Your task to perform on an android device: Open Google Chrome Image 0: 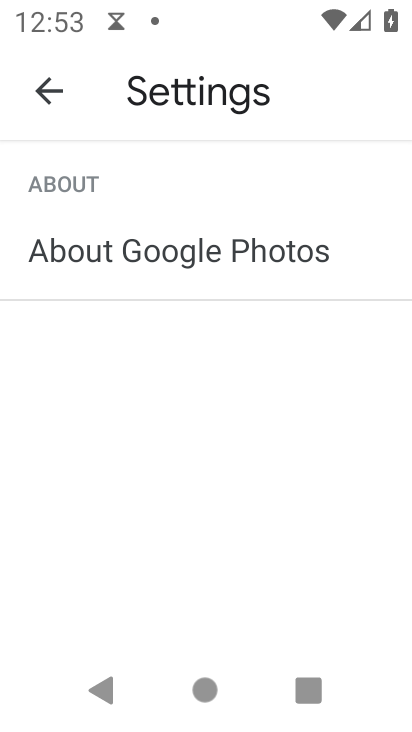
Step 0: click (34, 89)
Your task to perform on an android device: Open Google Chrome Image 1: 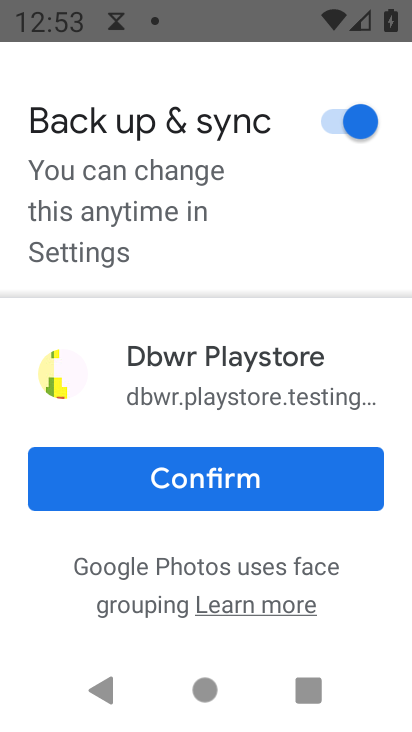
Step 1: click (240, 479)
Your task to perform on an android device: Open Google Chrome Image 2: 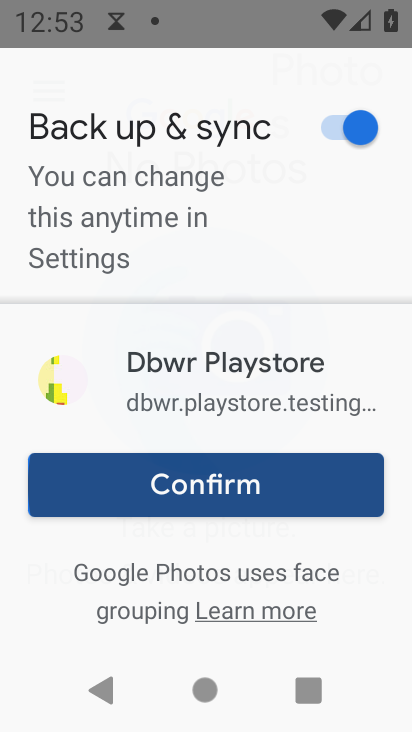
Step 2: click (242, 482)
Your task to perform on an android device: Open Google Chrome Image 3: 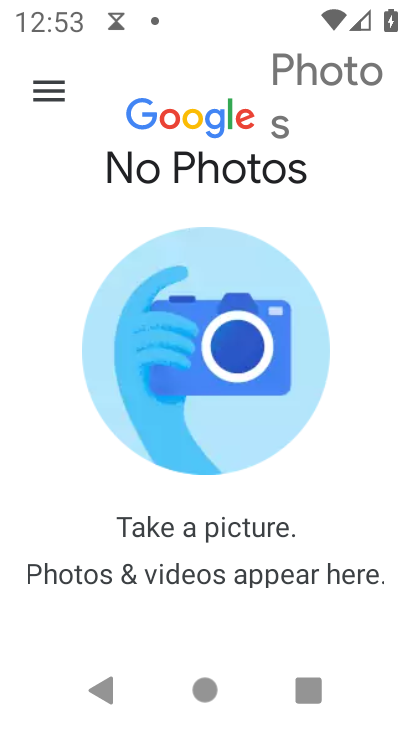
Step 3: click (242, 482)
Your task to perform on an android device: Open Google Chrome Image 4: 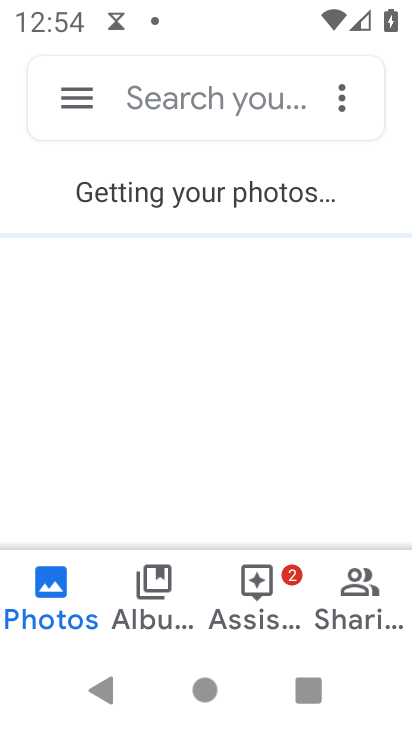
Step 4: press back button
Your task to perform on an android device: Open Google Chrome Image 5: 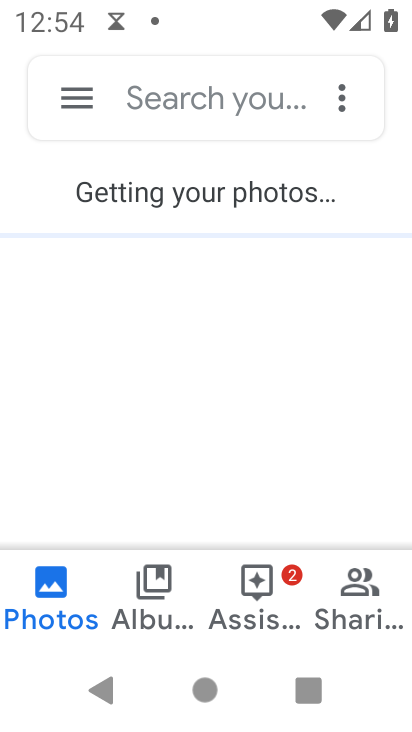
Step 5: press back button
Your task to perform on an android device: Open Google Chrome Image 6: 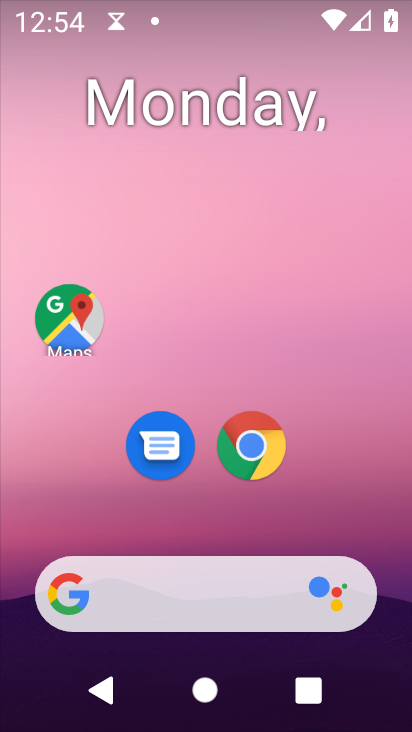
Step 6: drag from (343, 540) to (216, 80)
Your task to perform on an android device: Open Google Chrome Image 7: 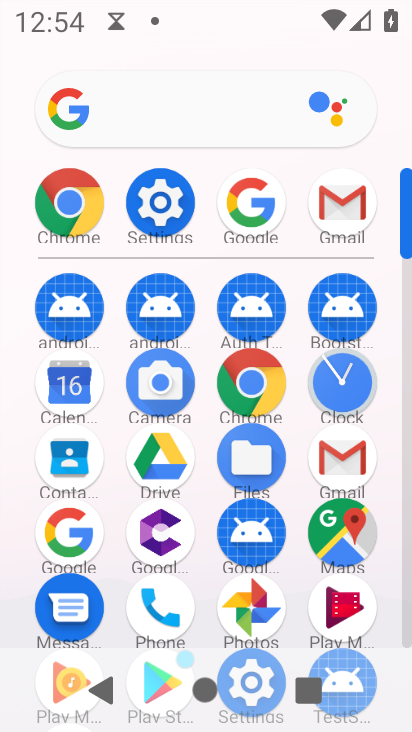
Step 7: click (242, 388)
Your task to perform on an android device: Open Google Chrome Image 8: 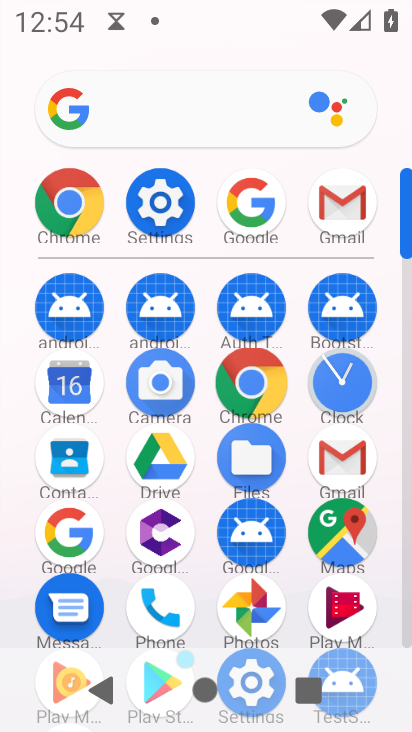
Step 8: click (245, 384)
Your task to perform on an android device: Open Google Chrome Image 9: 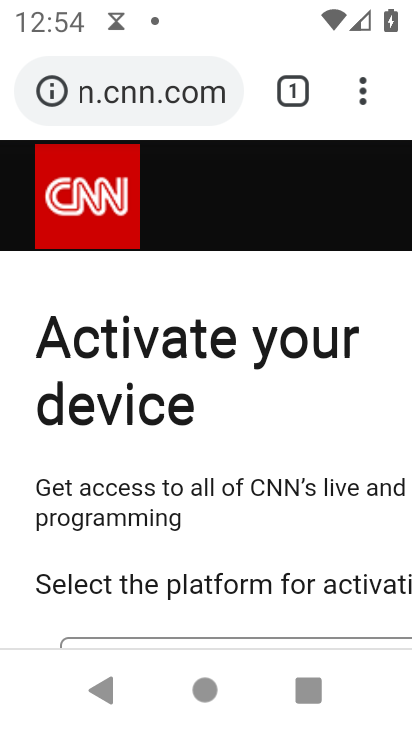
Step 9: click (359, 88)
Your task to perform on an android device: Open Google Chrome Image 10: 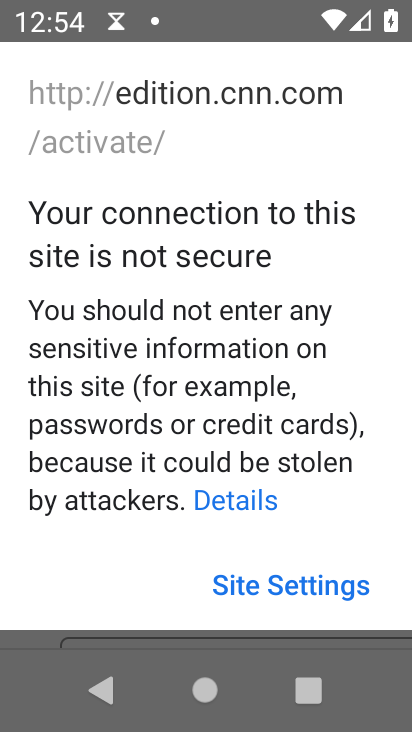
Step 10: task complete